Your task to perform on an android device: visit the assistant section in the google photos Image 0: 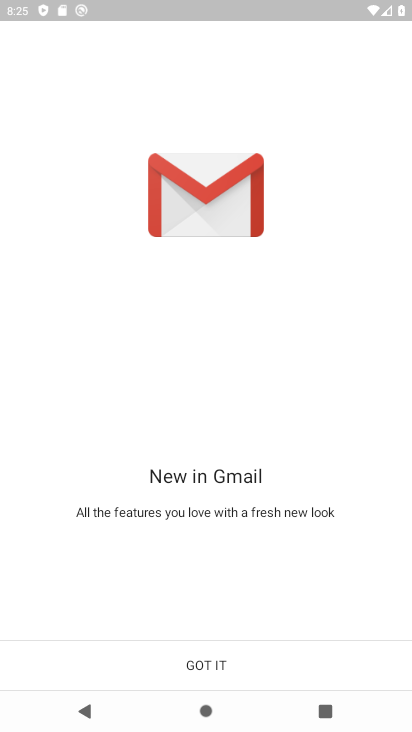
Step 0: drag from (199, 543) to (333, 209)
Your task to perform on an android device: visit the assistant section in the google photos Image 1: 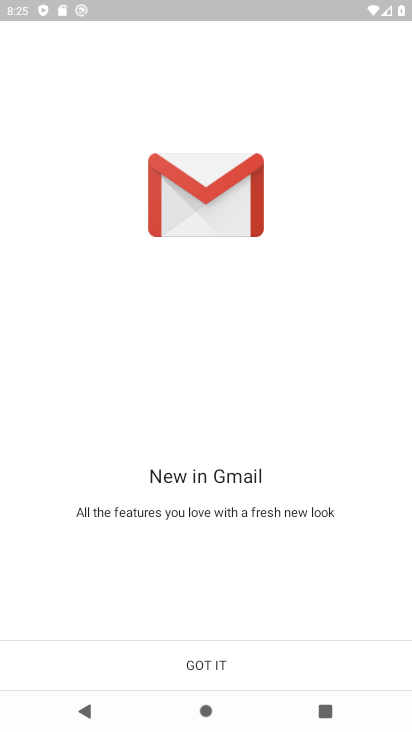
Step 1: press home button
Your task to perform on an android device: visit the assistant section in the google photos Image 2: 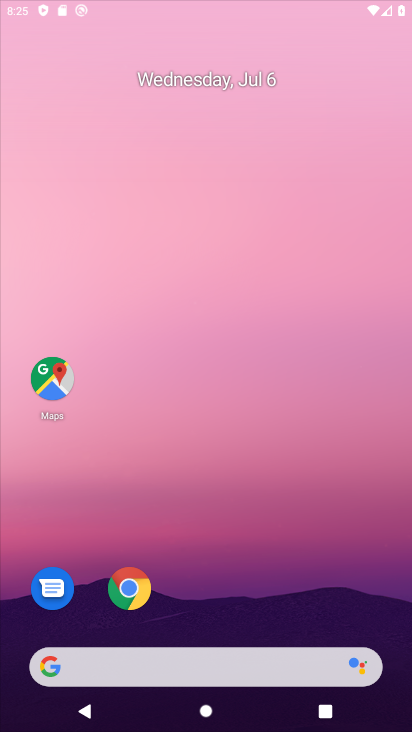
Step 2: drag from (198, 548) to (252, 207)
Your task to perform on an android device: visit the assistant section in the google photos Image 3: 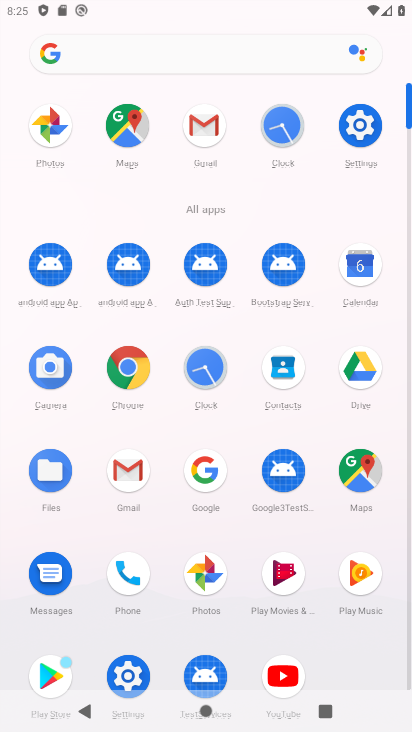
Step 3: click (205, 568)
Your task to perform on an android device: visit the assistant section in the google photos Image 4: 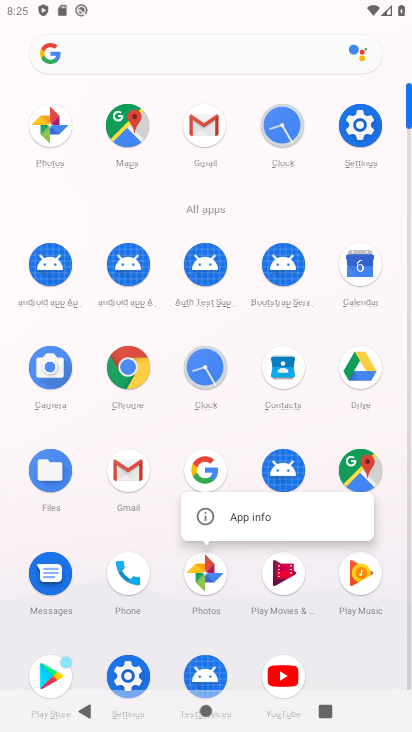
Step 4: click (234, 510)
Your task to perform on an android device: visit the assistant section in the google photos Image 5: 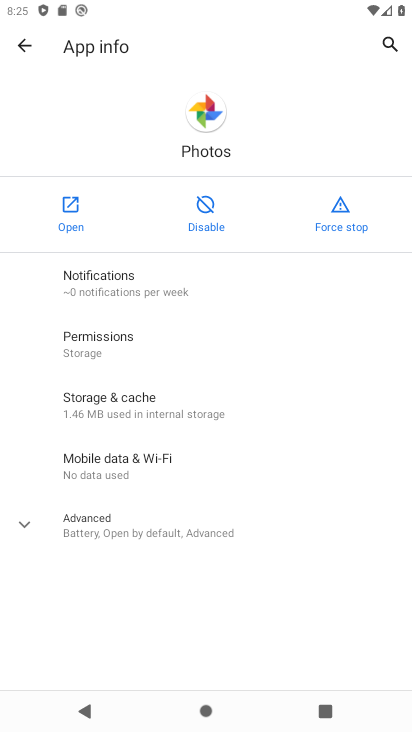
Step 5: click (71, 196)
Your task to perform on an android device: visit the assistant section in the google photos Image 6: 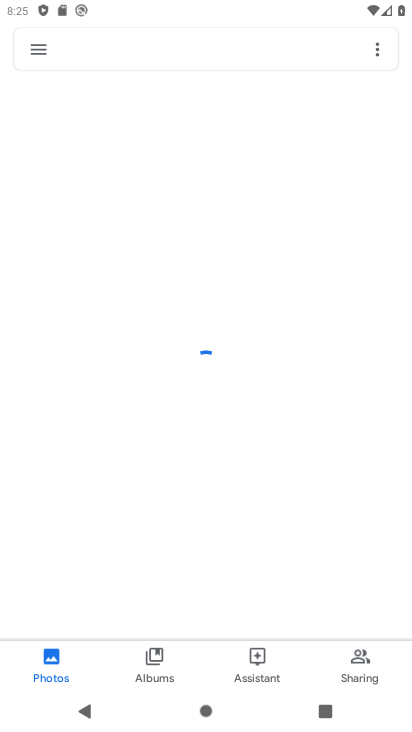
Step 6: click (261, 667)
Your task to perform on an android device: visit the assistant section in the google photos Image 7: 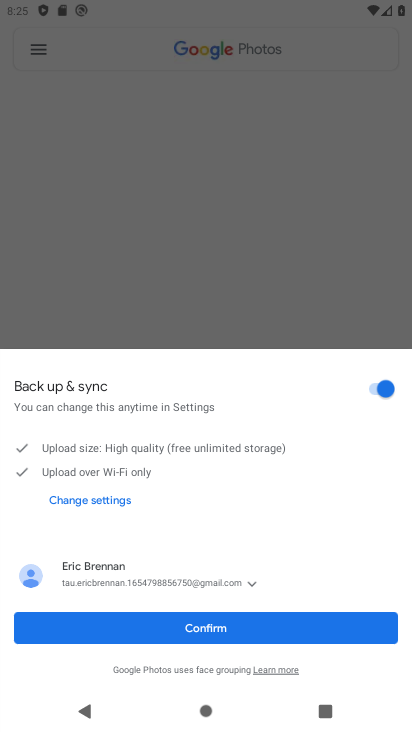
Step 7: click (241, 641)
Your task to perform on an android device: visit the assistant section in the google photos Image 8: 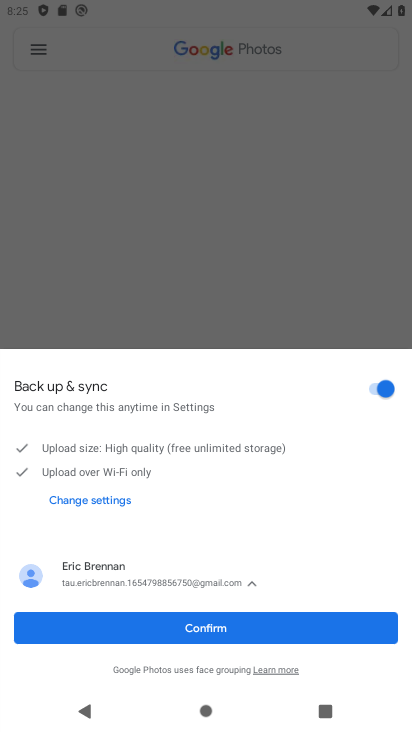
Step 8: click (231, 636)
Your task to perform on an android device: visit the assistant section in the google photos Image 9: 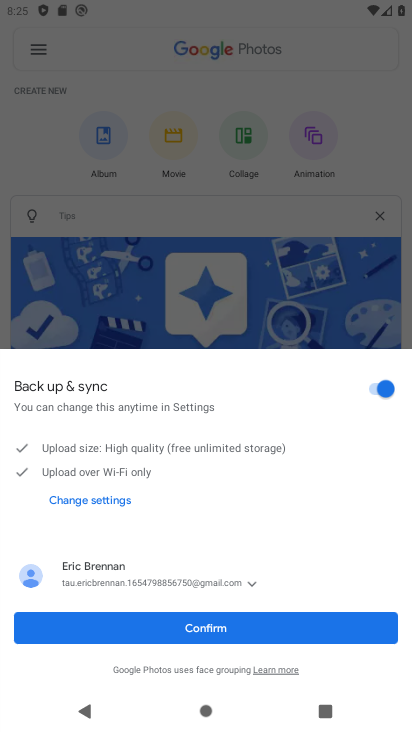
Step 9: click (198, 633)
Your task to perform on an android device: visit the assistant section in the google photos Image 10: 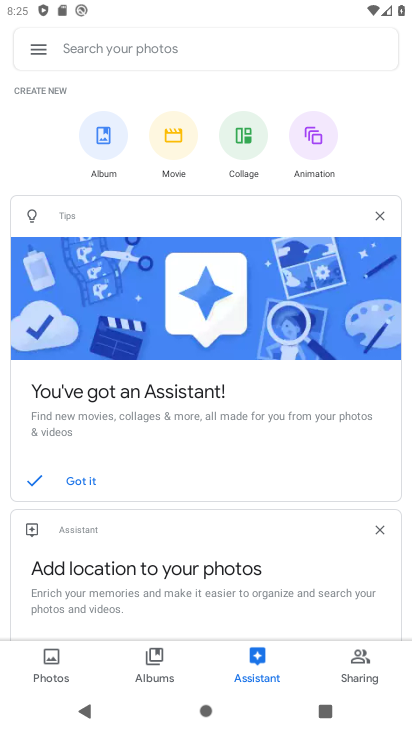
Step 10: click (236, 674)
Your task to perform on an android device: visit the assistant section in the google photos Image 11: 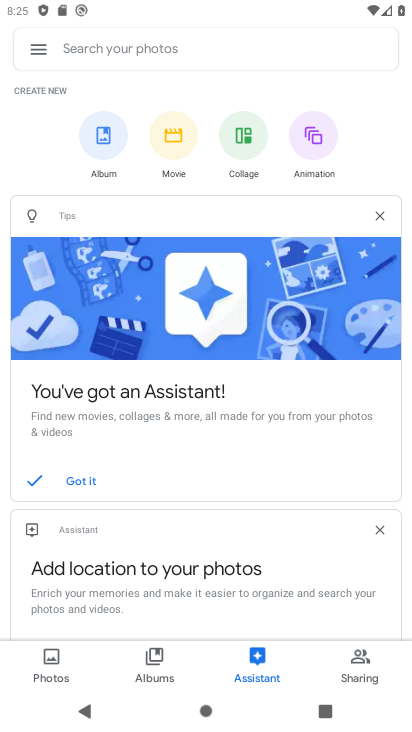
Step 11: task complete